Your task to perform on an android device: Go to battery settings Image 0: 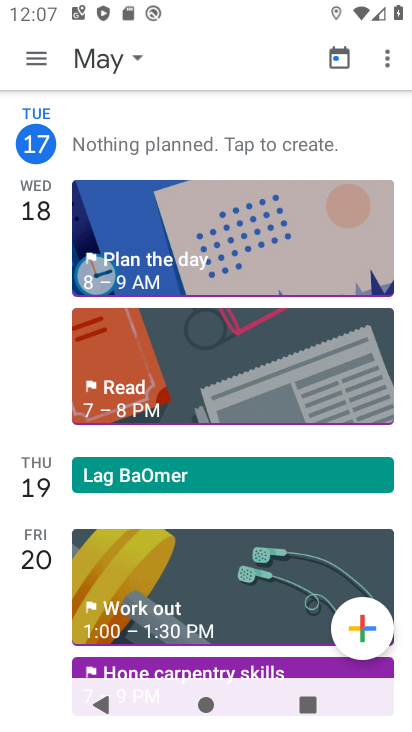
Step 0: press home button
Your task to perform on an android device: Go to battery settings Image 1: 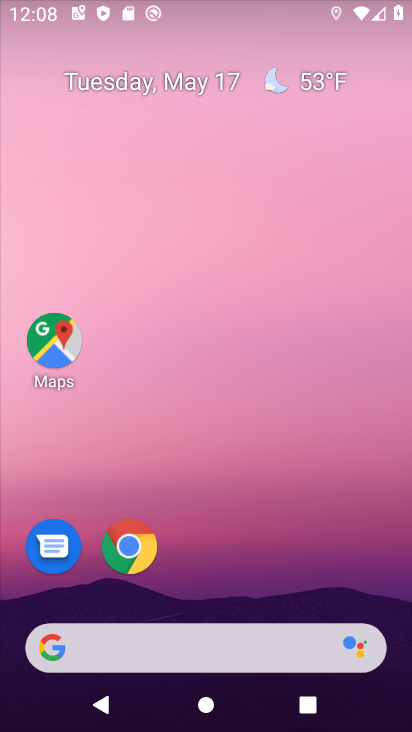
Step 1: drag from (254, 352) to (285, 52)
Your task to perform on an android device: Go to battery settings Image 2: 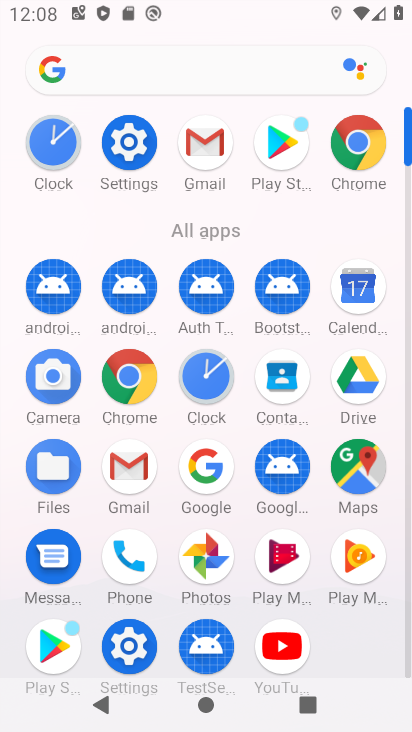
Step 2: click (141, 137)
Your task to perform on an android device: Go to battery settings Image 3: 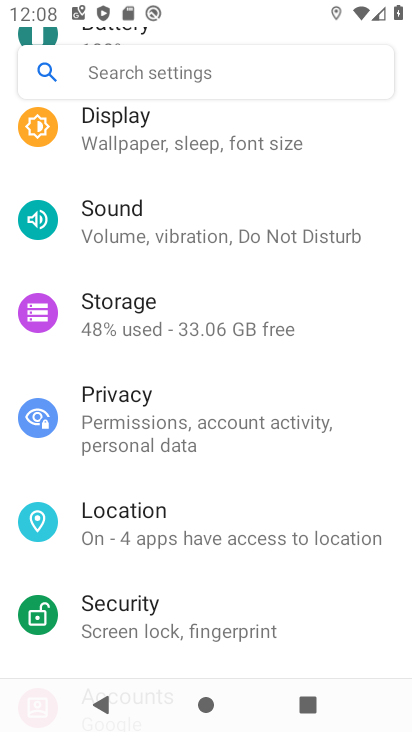
Step 3: drag from (182, 221) to (166, 605)
Your task to perform on an android device: Go to battery settings Image 4: 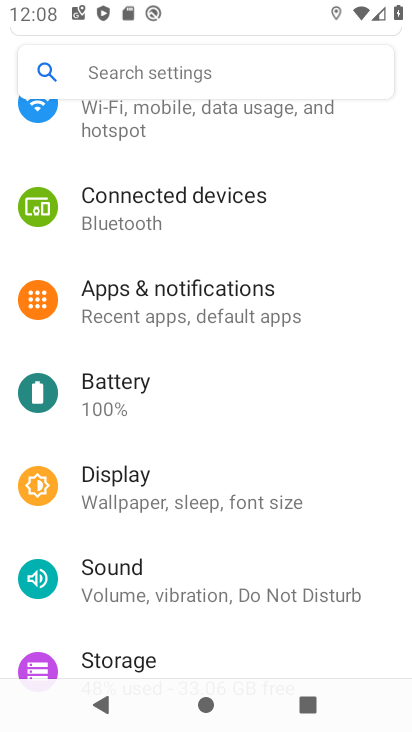
Step 4: click (128, 395)
Your task to perform on an android device: Go to battery settings Image 5: 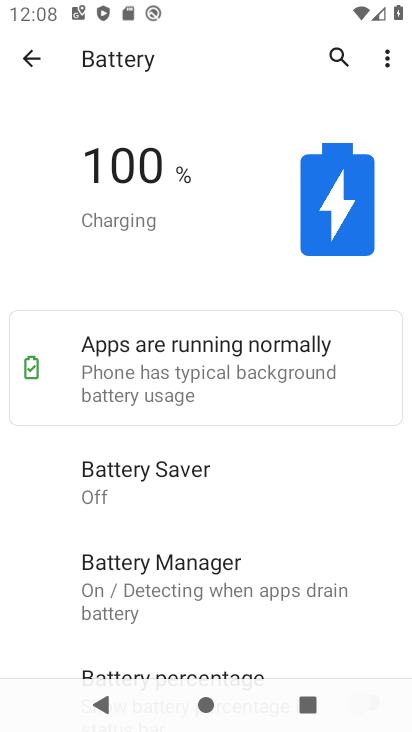
Step 5: task complete